Your task to perform on an android device: install app "TextNow: Call + Text Unlimited" Image 0: 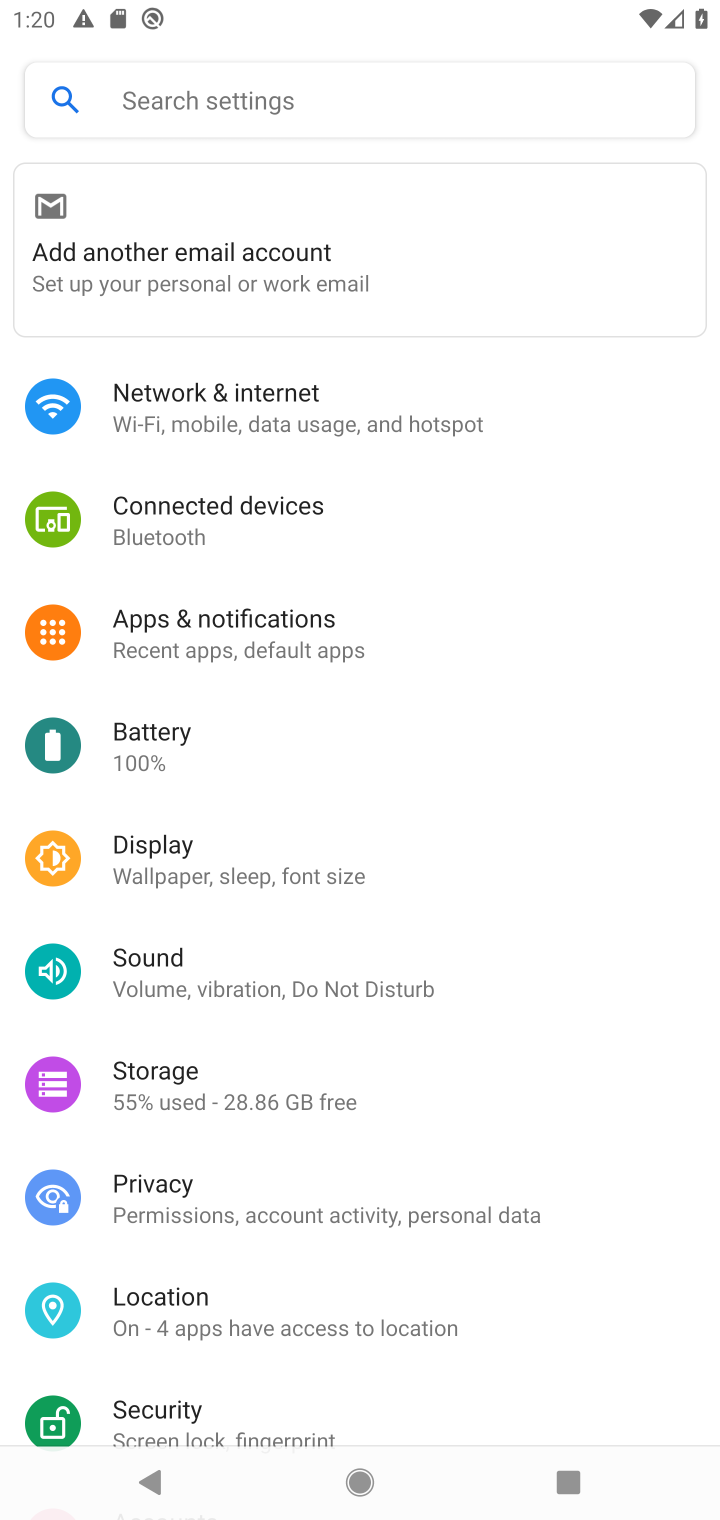
Step 0: press home button
Your task to perform on an android device: install app "TextNow: Call + Text Unlimited" Image 1: 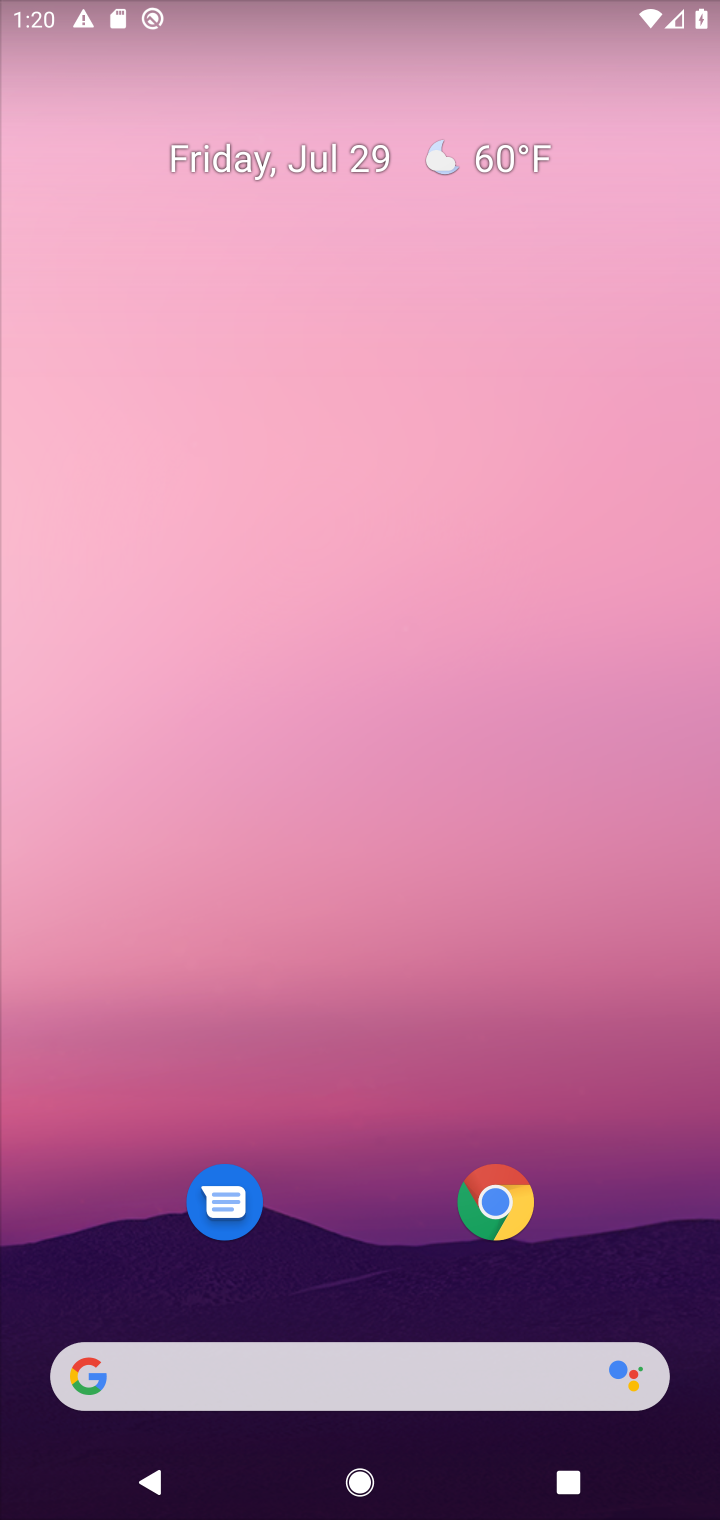
Step 1: click (323, 1384)
Your task to perform on an android device: install app "TextNow: Call + Text Unlimited" Image 2: 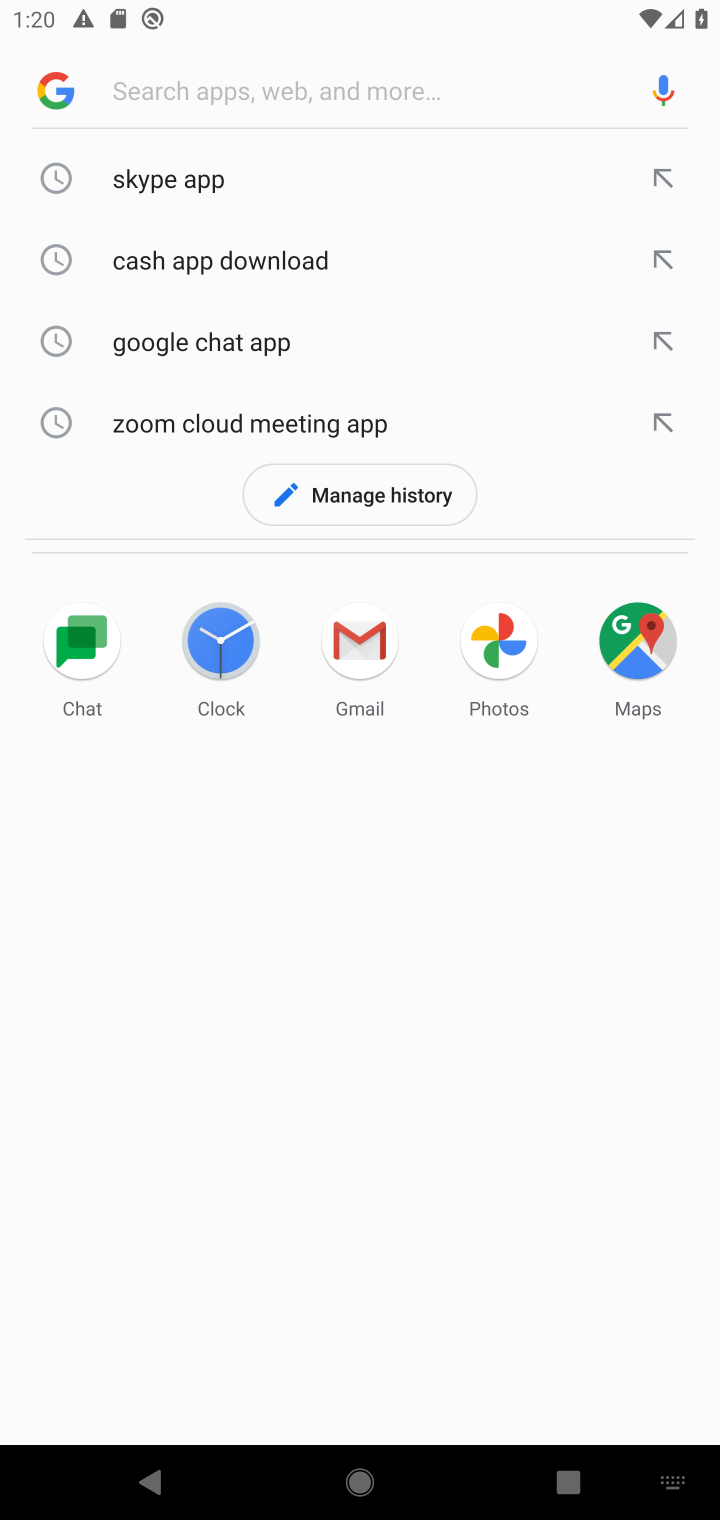
Step 2: type "textnow"
Your task to perform on an android device: install app "TextNow: Call + Text Unlimited" Image 3: 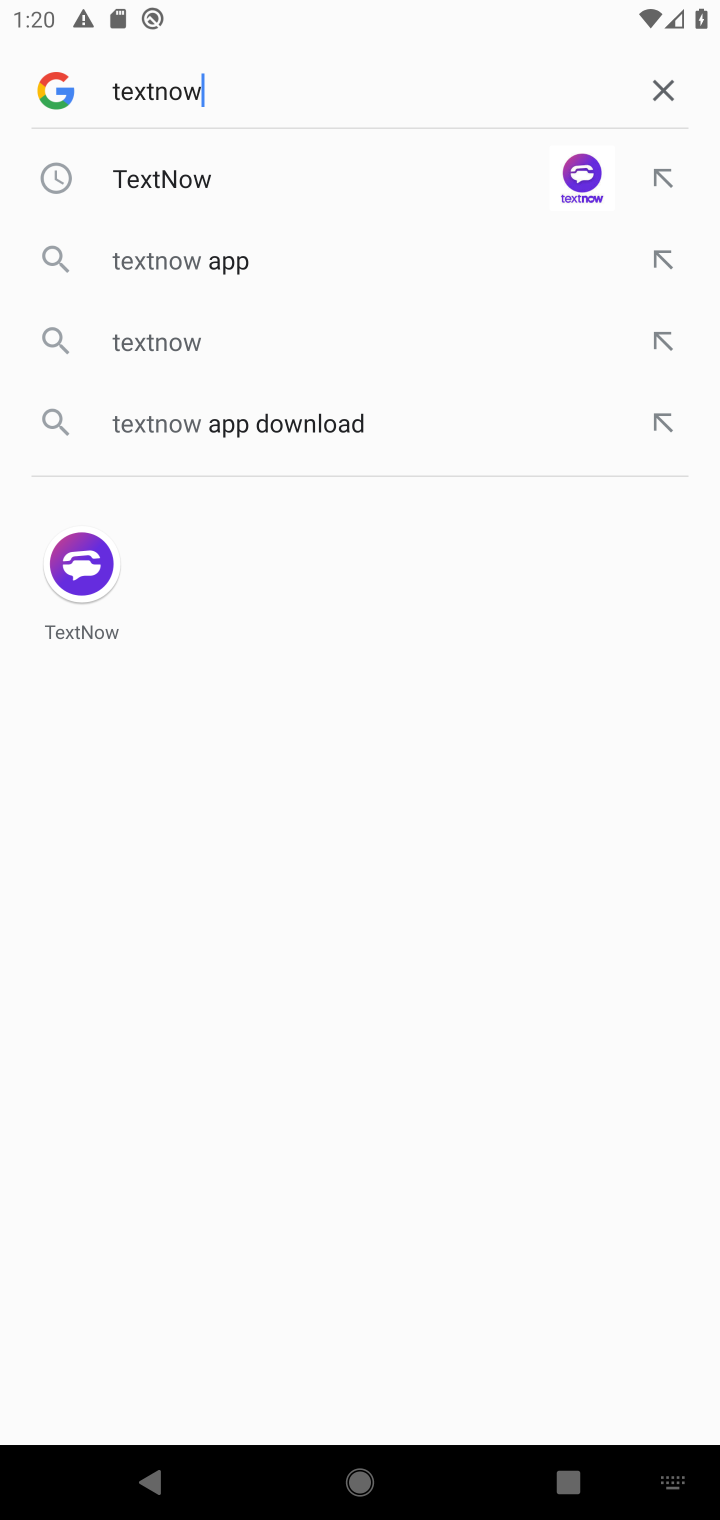
Step 3: click (241, 168)
Your task to perform on an android device: install app "TextNow: Call + Text Unlimited" Image 4: 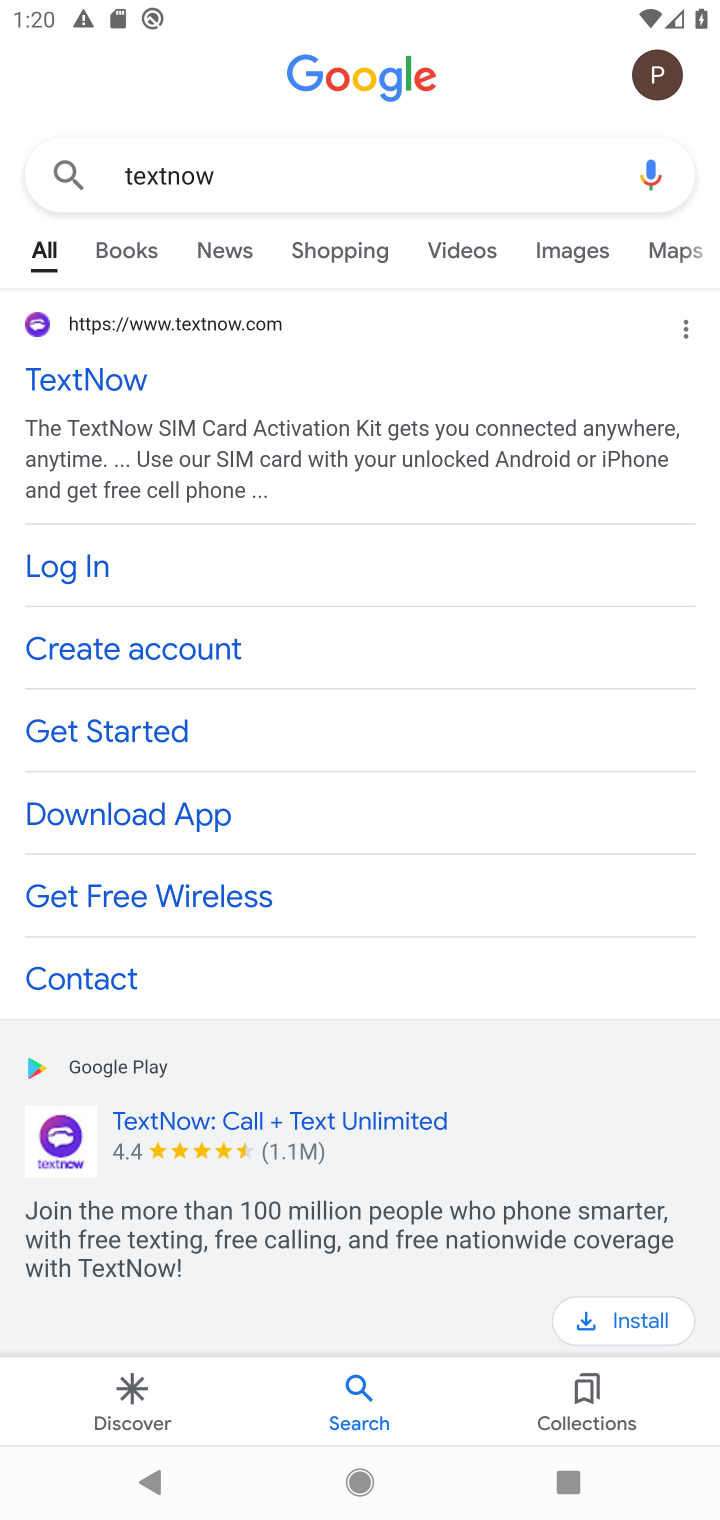
Step 4: click (575, 1313)
Your task to perform on an android device: install app "TextNow: Call + Text Unlimited" Image 5: 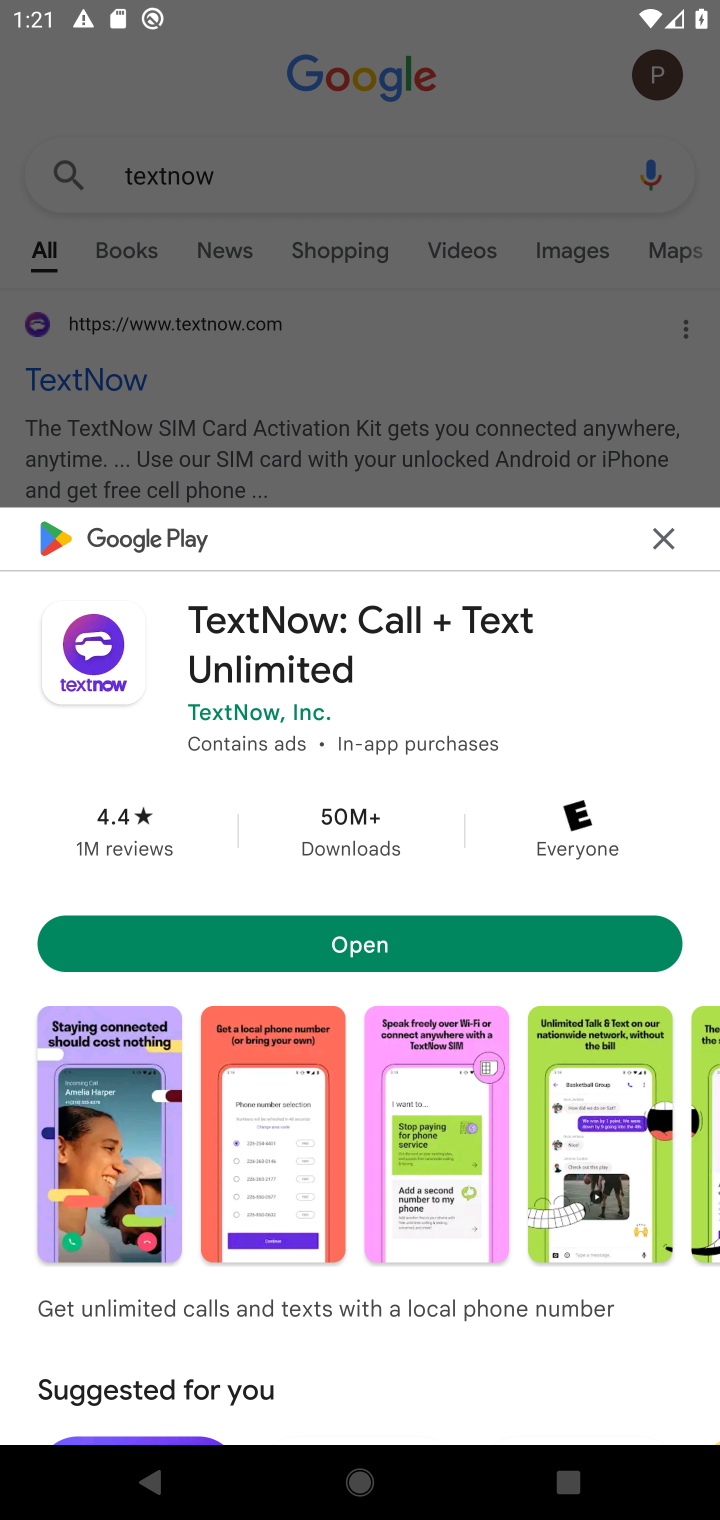
Step 5: click (423, 919)
Your task to perform on an android device: install app "TextNow: Call + Text Unlimited" Image 6: 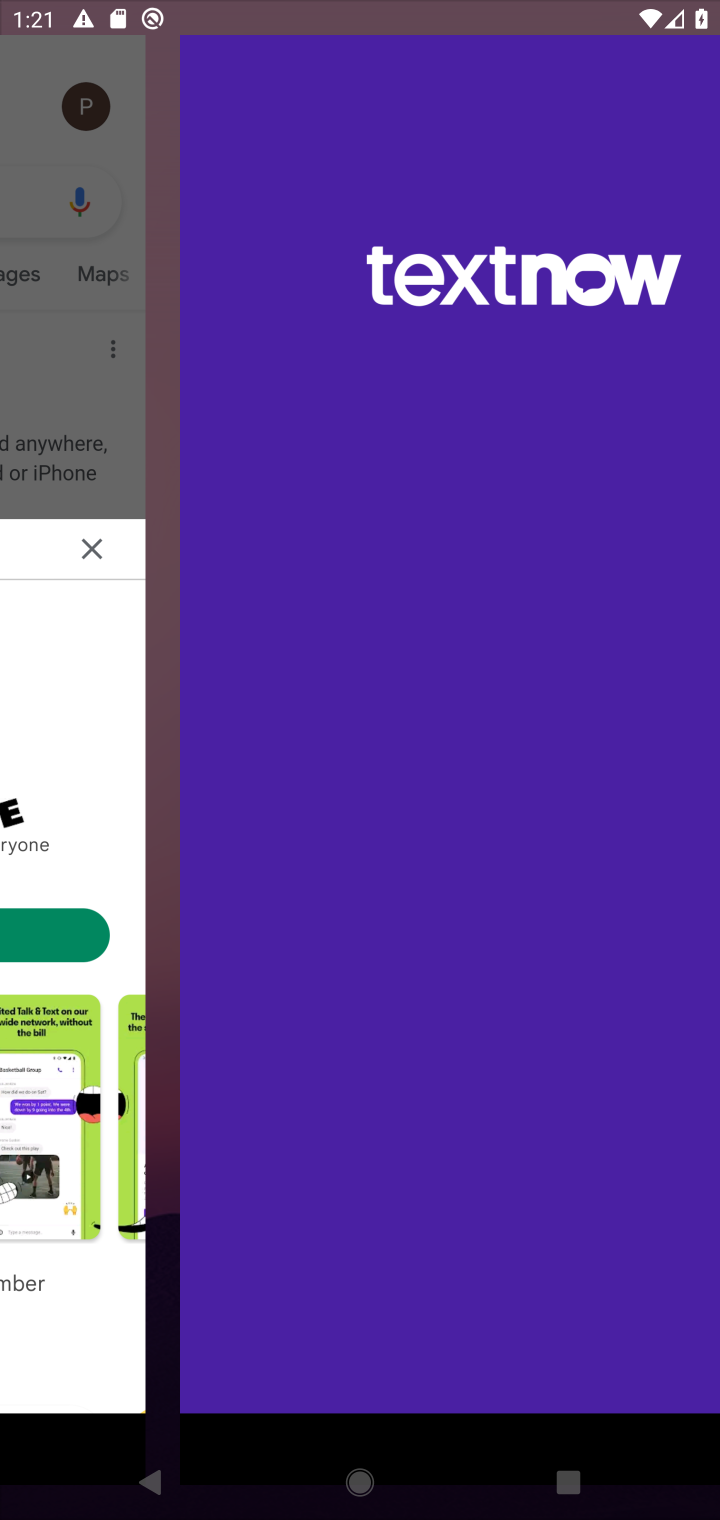
Step 6: task complete